Your task to perform on an android device: Open Google Chrome and open the bookmarks view Image 0: 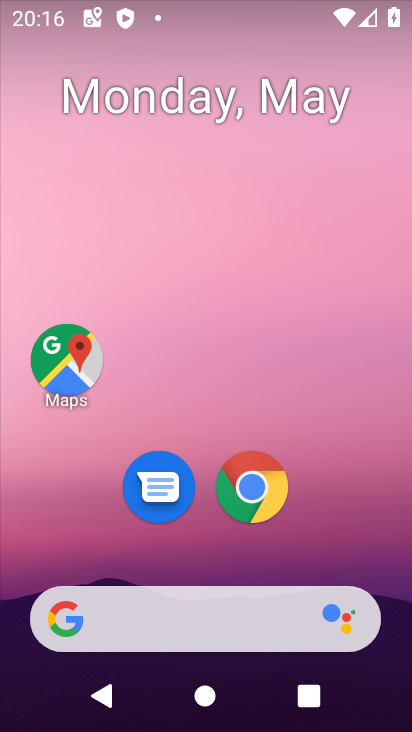
Step 0: drag from (379, 567) to (386, 189)
Your task to perform on an android device: Open Google Chrome and open the bookmarks view Image 1: 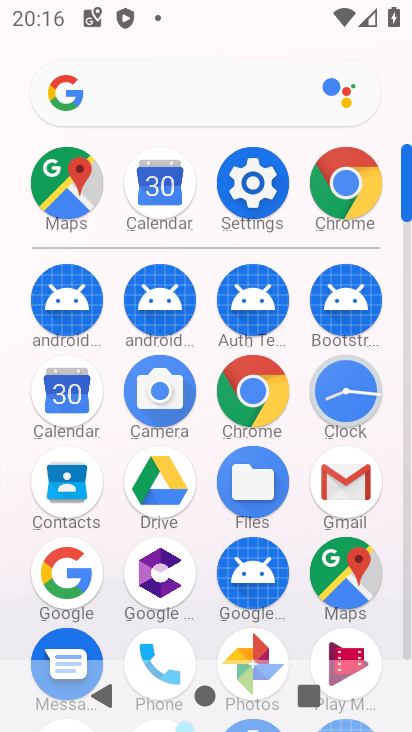
Step 1: click (264, 390)
Your task to perform on an android device: Open Google Chrome and open the bookmarks view Image 2: 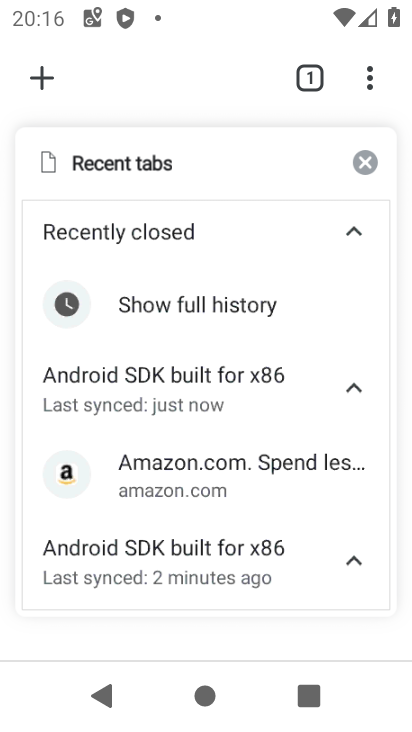
Step 2: press back button
Your task to perform on an android device: Open Google Chrome and open the bookmarks view Image 3: 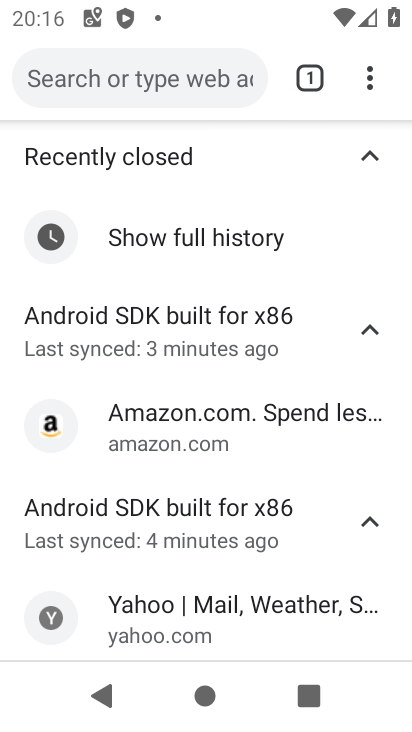
Step 3: click (370, 84)
Your task to perform on an android device: Open Google Chrome and open the bookmarks view Image 4: 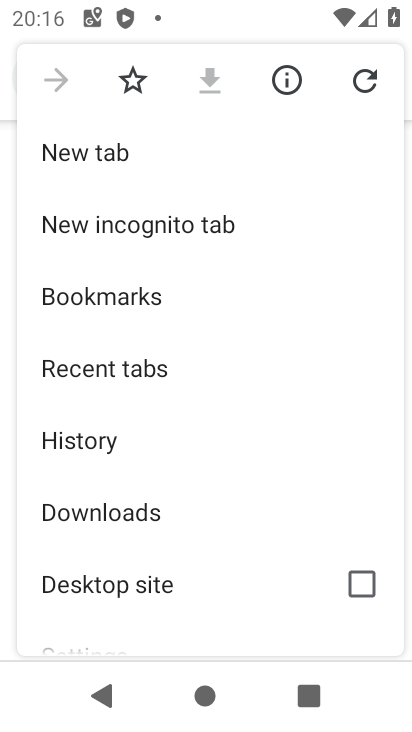
Step 4: click (154, 296)
Your task to perform on an android device: Open Google Chrome and open the bookmarks view Image 5: 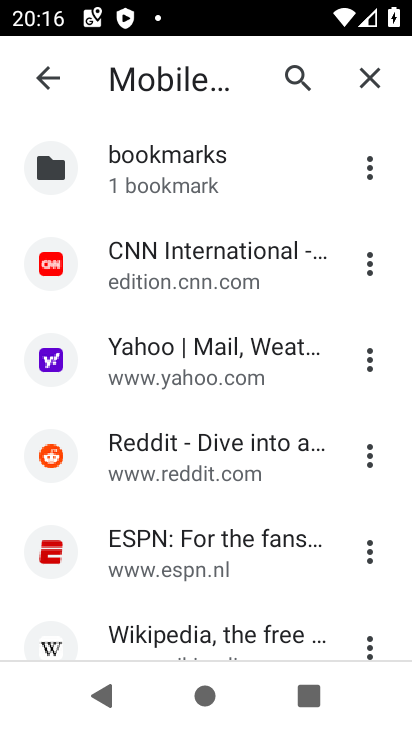
Step 5: task complete